Your task to perform on an android device: open app "HBO Max: Stream TV & Movies" Image 0: 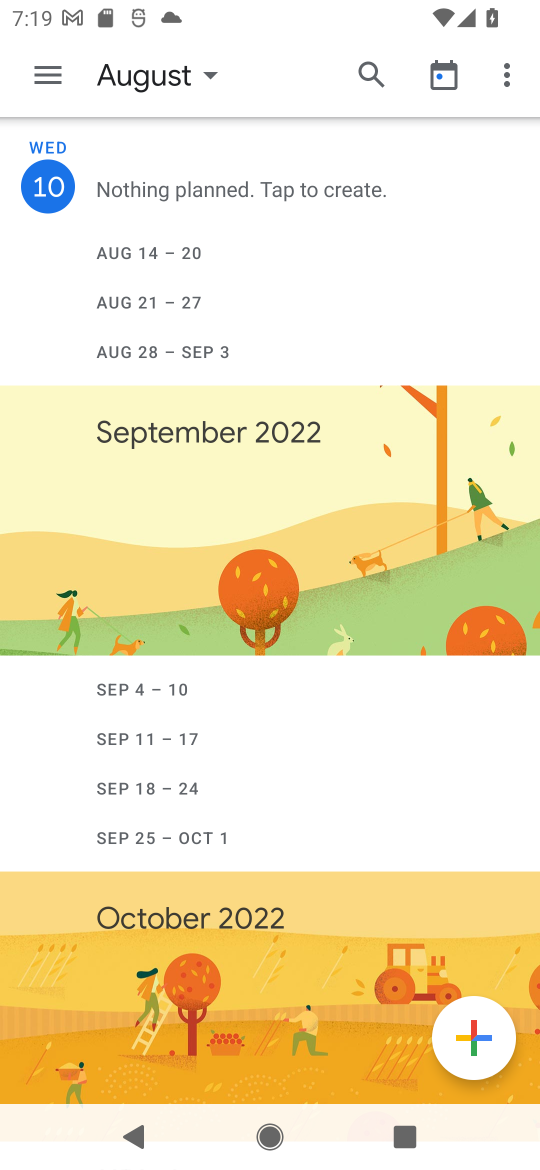
Step 0: press home button
Your task to perform on an android device: open app "HBO Max: Stream TV & Movies" Image 1: 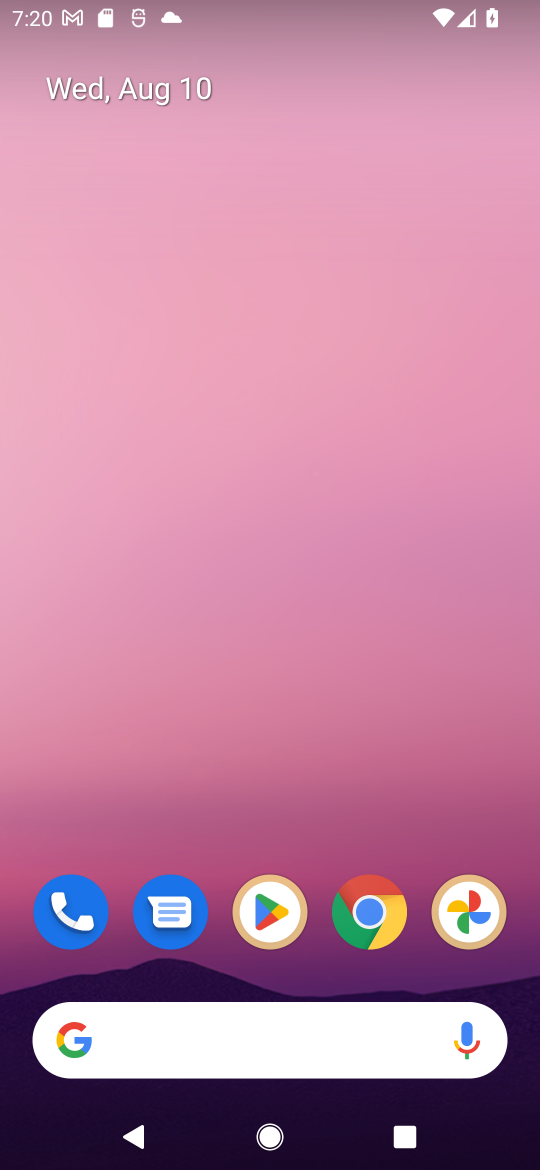
Step 1: drag from (519, 832) to (285, 54)
Your task to perform on an android device: open app "HBO Max: Stream TV & Movies" Image 2: 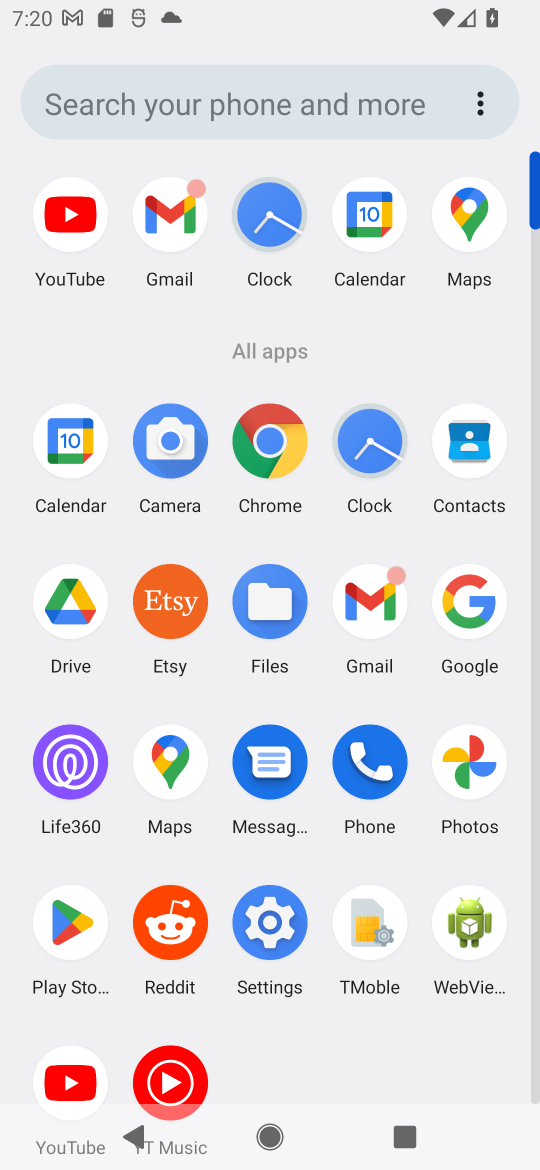
Step 2: click (49, 920)
Your task to perform on an android device: open app "HBO Max: Stream TV & Movies" Image 3: 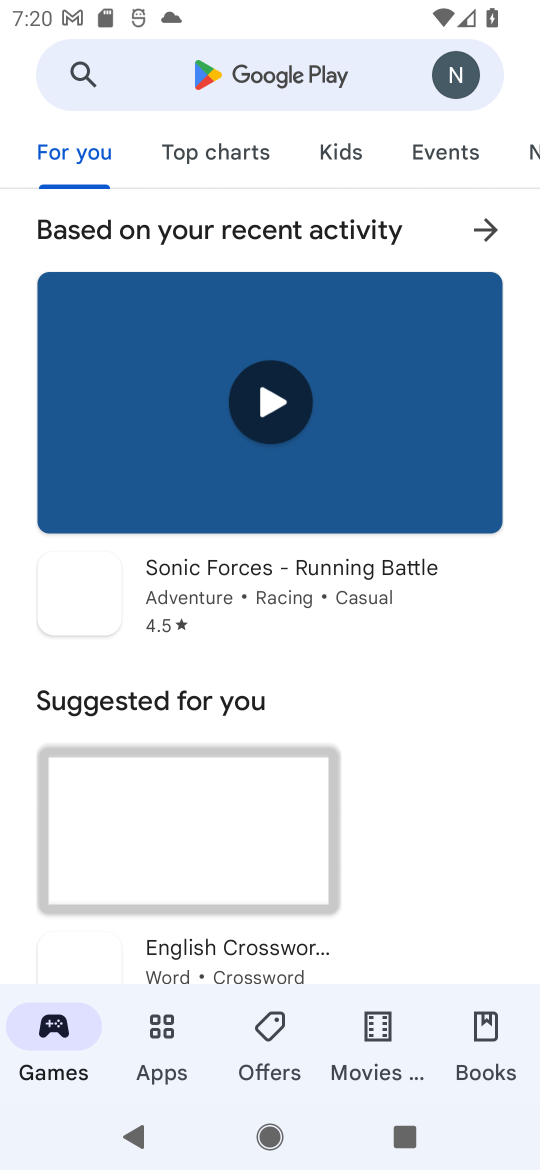
Step 3: click (159, 62)
Your task to perform on an android device: open app "HBO Max: Stream TV & Movies" Image 4: 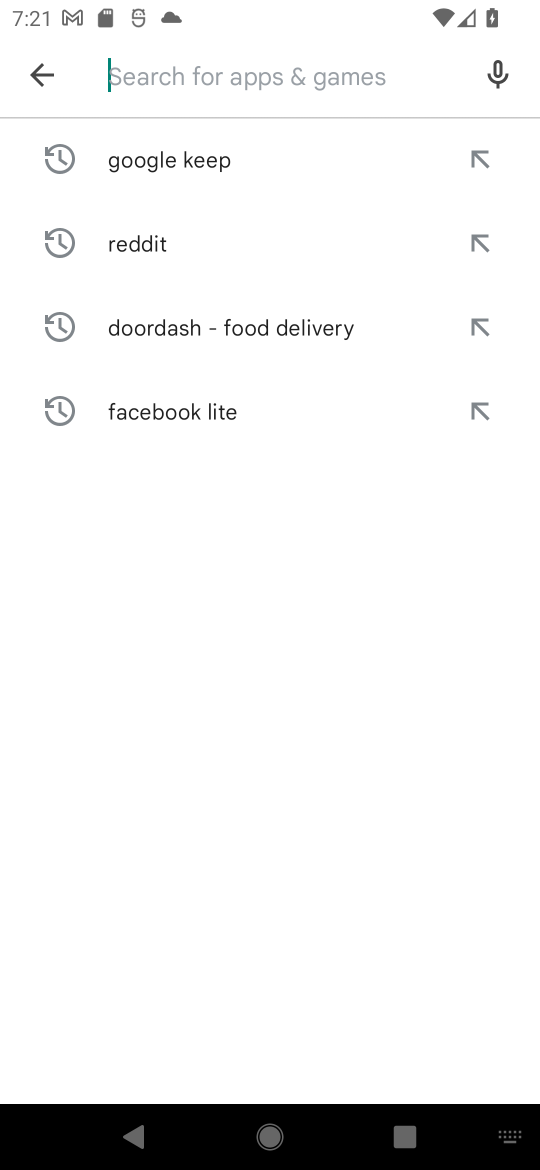
Step 4: type "HBO Max: Stream TV & Movies"
Your task to perform on an android device: open app "HBO Max: Stream TV & Movies" Image 5: 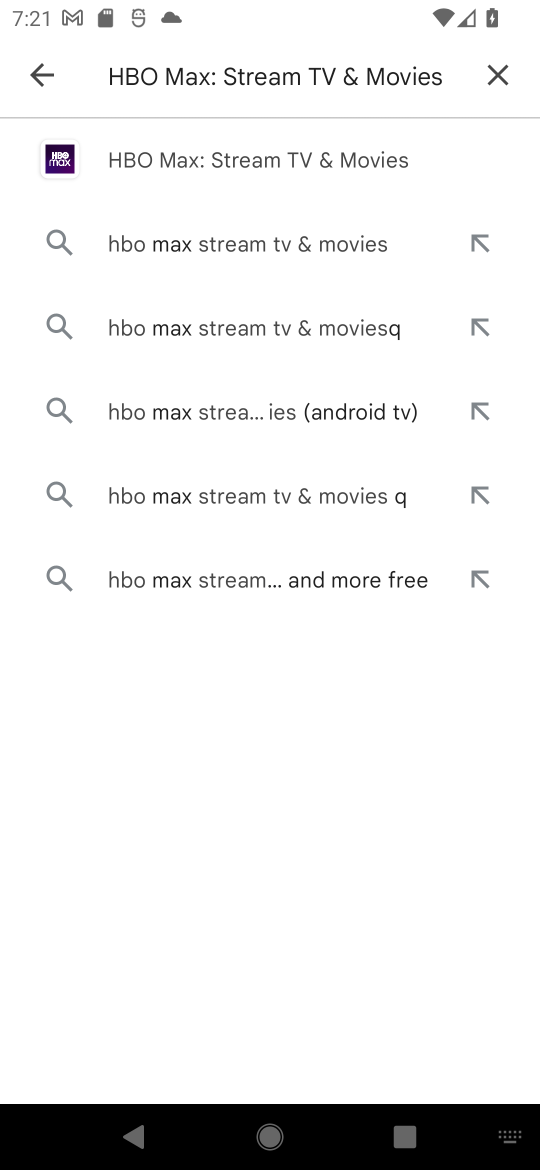
Step 5: click (192, 147)
Your task to perform on an android device: open app "HBO Max: Stream TV & Movies" Image 6: 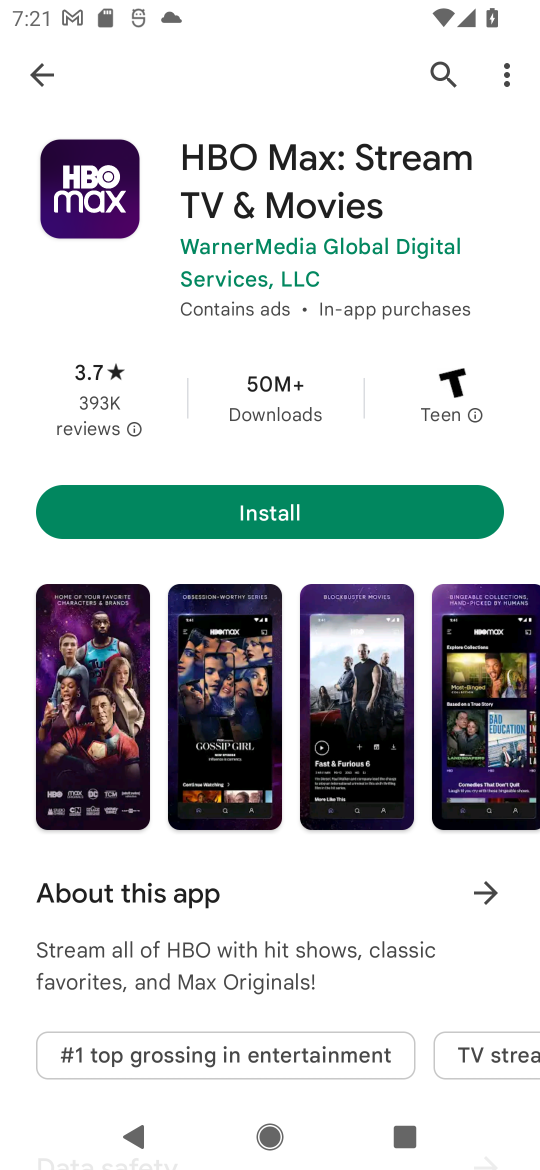
Step 6: task complete